Your task to perform on an android device: remove spam from my inbox in the gmail app Image 0: 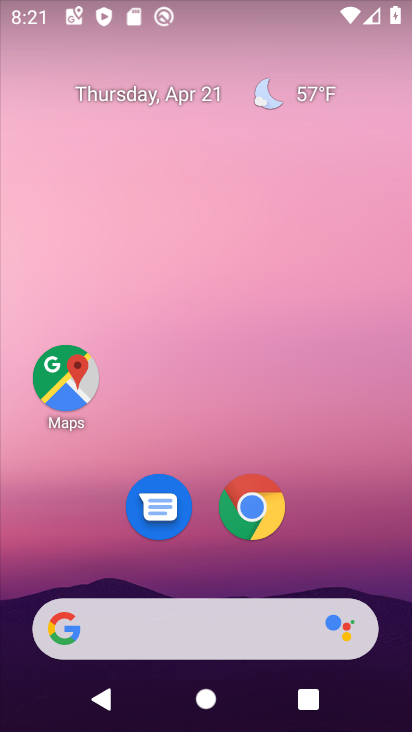
Step 0: drag from (345, 482) to (334, 20)
Your task to perform on an android device: remove spam from my inbox in the gmail app Image 1: 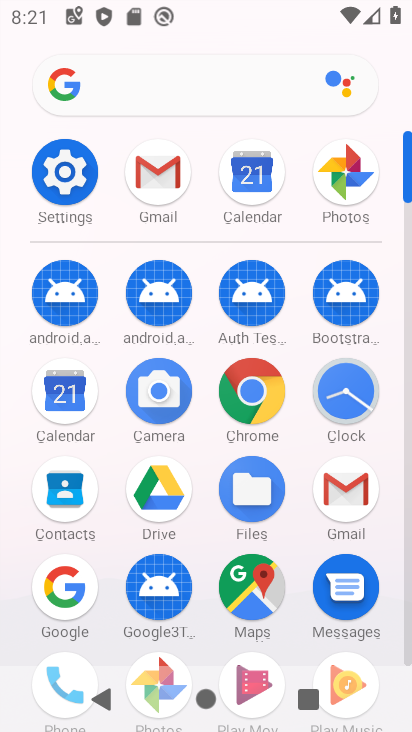
Step 1: click (155, 182)
Your task to perform on an android device: remove spam from my inbox in the gmail app Image 2: 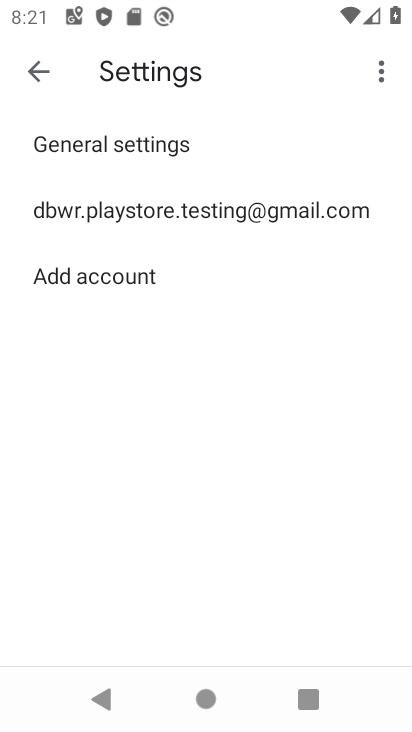
Step 2: click (42, 65)
Your task to perform on an android device: remove spam from my inbox in the gmail app Image 3: 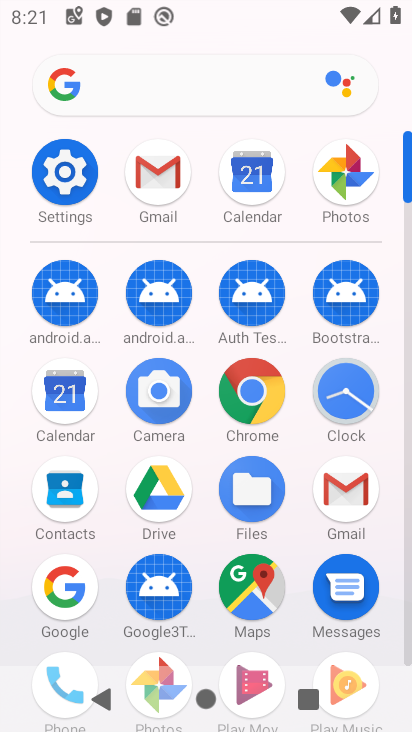
Step 3: click (162, 165)
Your task to perform on an android device: remove spam from my inbox in the gmail app Image 4: 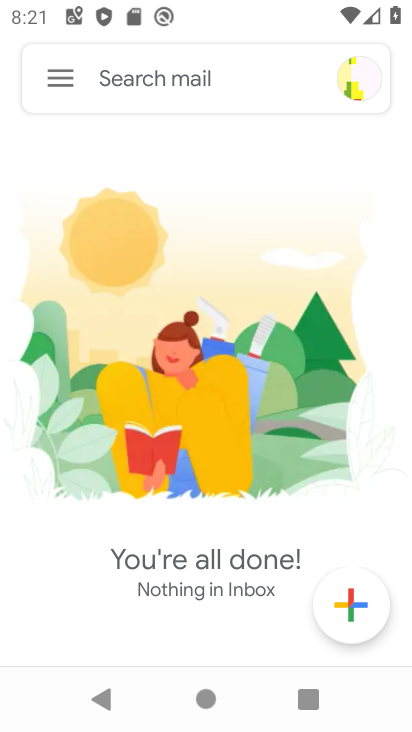
Step 4: click (51, 87)
Your task to perform on an android device: remove spam from my inbox in the gmail app Image 5: 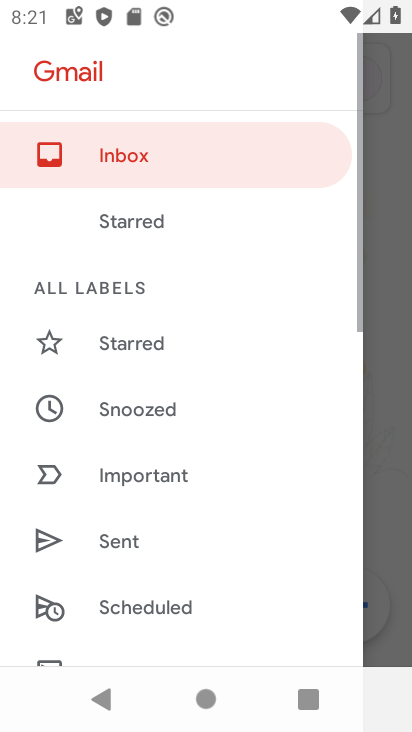
Step 5: task complete